Your task to perform on an android device: turn off airplane mode Image 0: 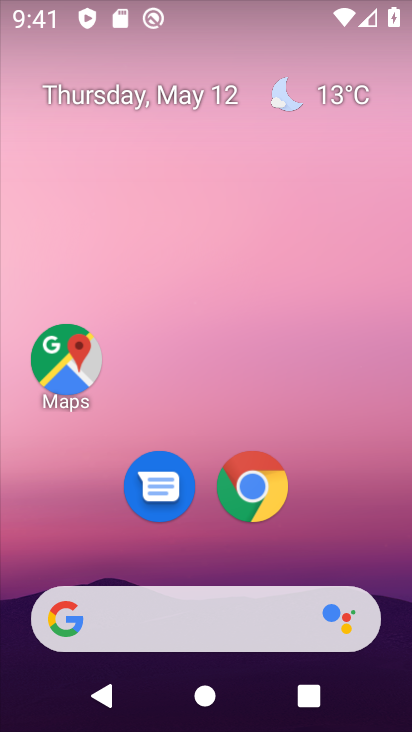
Step 0: drag from (337, 11) to (209, 584)
Your task to perform on an android device: turn off airplane mode Image 1: 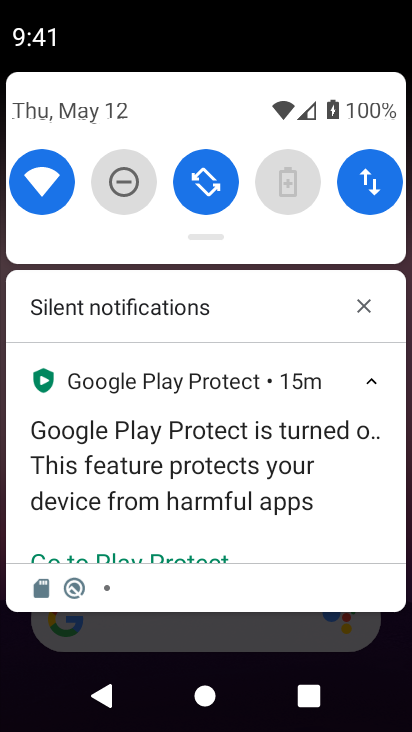
Step 1: task complete